Your task to perform on an android device: create a new album in the google photos Image 0: 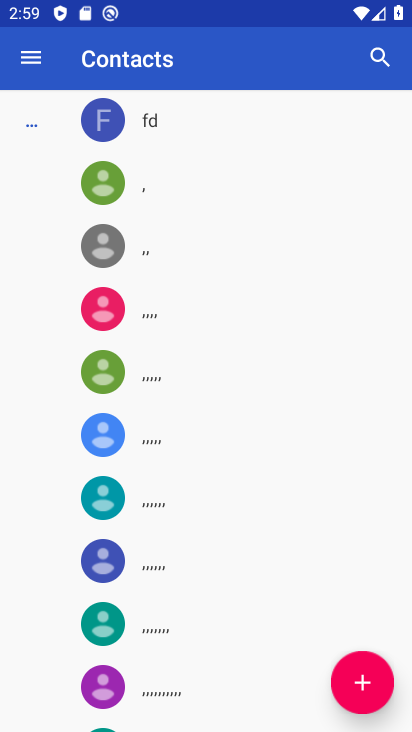
Step 0: press home button
Your task to perform on an android device: create a new album in the google photos Image 1: 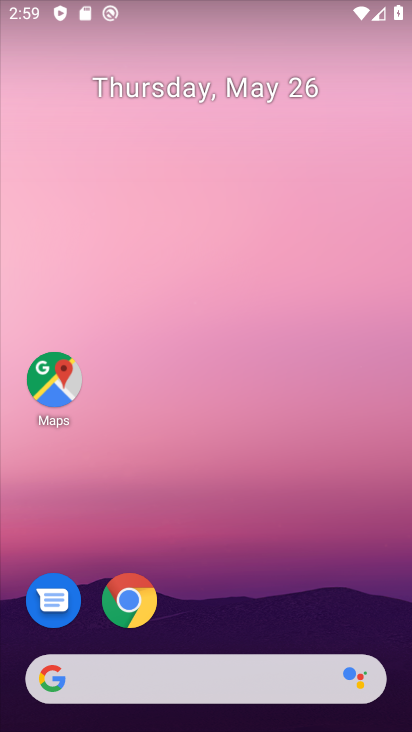
Step 1: drag from (193, 638) to (233, 296)
Your task to perform on an android device: create a new album in the google photos Image 2: 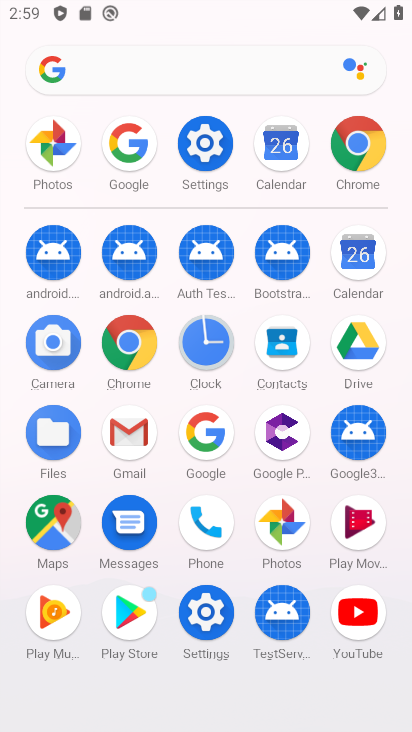
Step 2: click (277, 529)
Your task to perform on an android device: create a new album in the google photos Image 3: 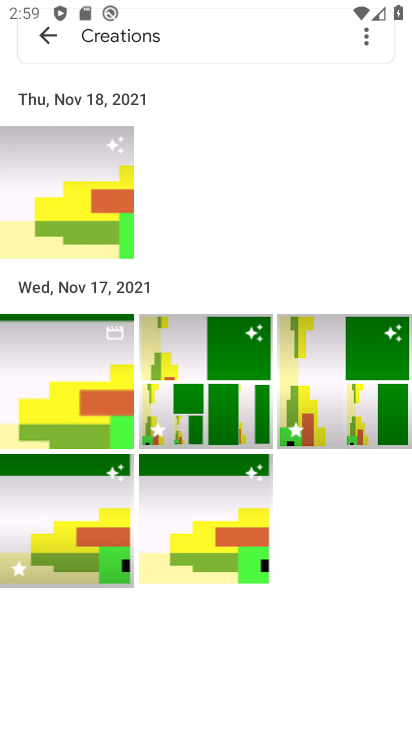
Step 3: click (43, 47)
Your task to perform on an android device: create a new album in the google photos Image 4: 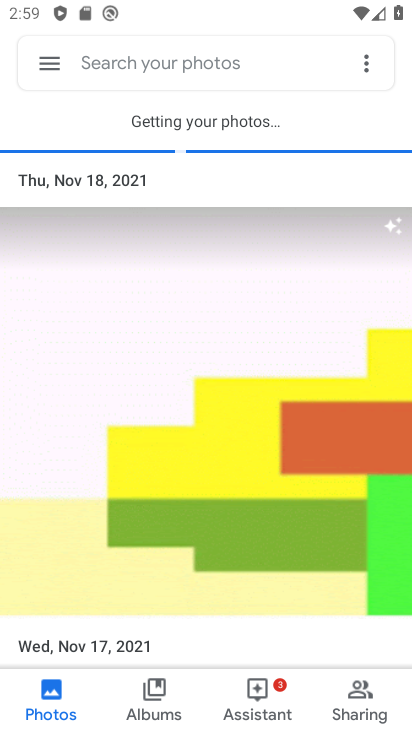
Step 4: click (137, 694)
Your task to perform on an android device: create a new album in the google photos Image 5: 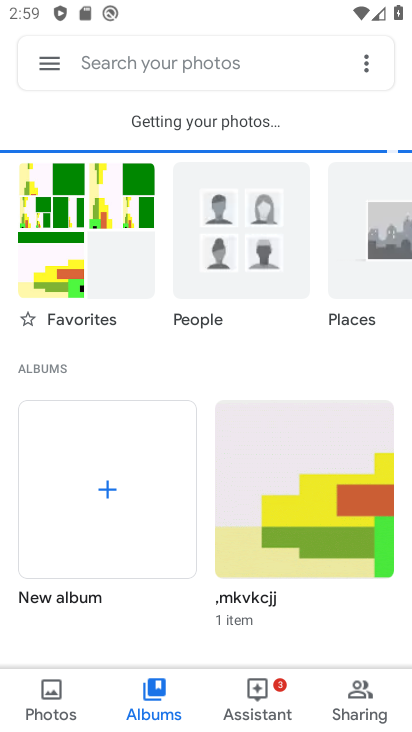
Step 5: click (119, 504)
Your task to perform on an android device: create a new album in the google photos Image 6: 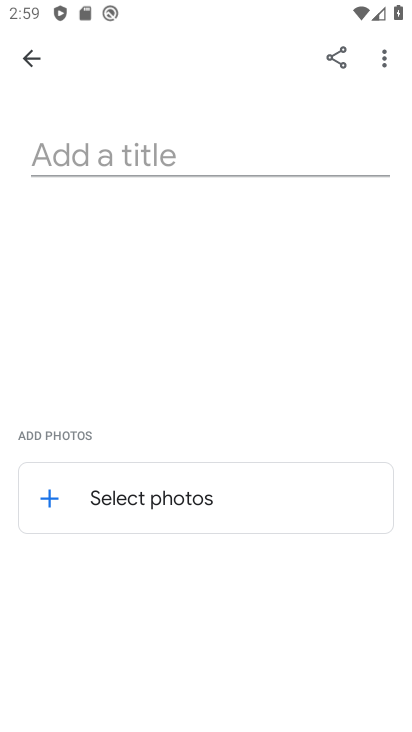
Step 6: click (144, 150)
Your task to perform on an android device: create a new album in the google photos Image 7: 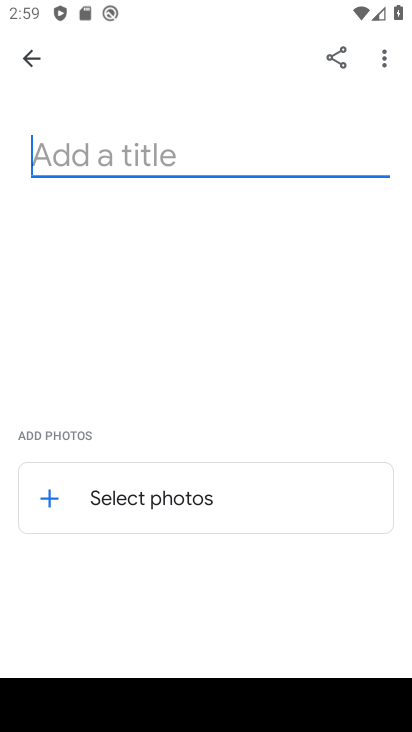
Step 7: type "ttve"
Your task to perform on an android device: create a new album in the google photos Image 8: 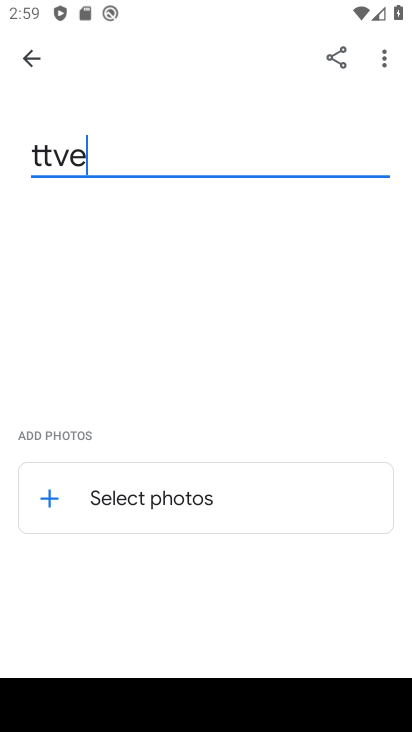
Step 8: click (125, 499)
Your task to perform on an android device: create a new album in the google photos Image 9: 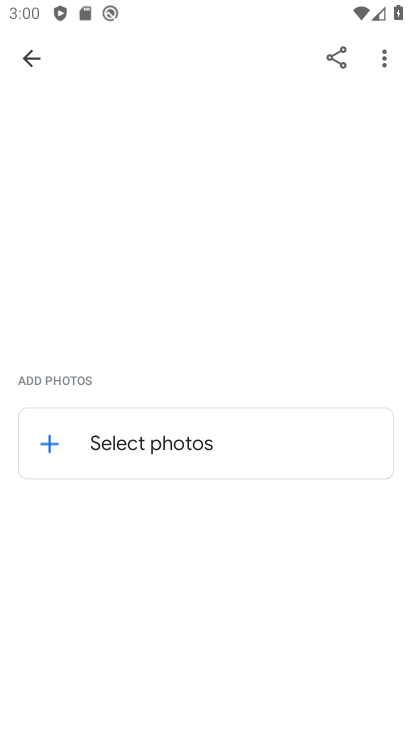
Step 9: click (87, 490)
Your task to perform on an android device: create a new album in the google photos Image 10: 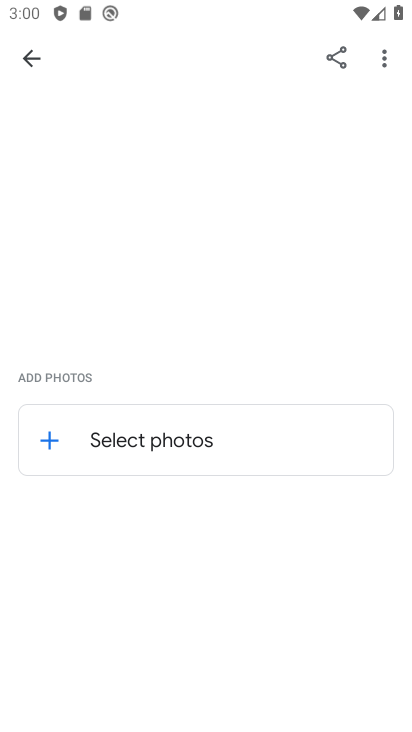
Step 10: click (144, 436)
Your task to perform on an android device: create a new album in the google photos Image 11: 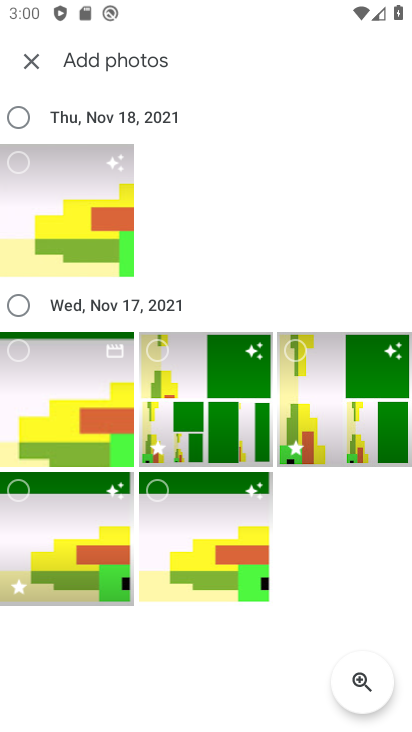
Step 11: click (87, 244)
Your task to perform on an android device: create a new album in the google photos Image 12: 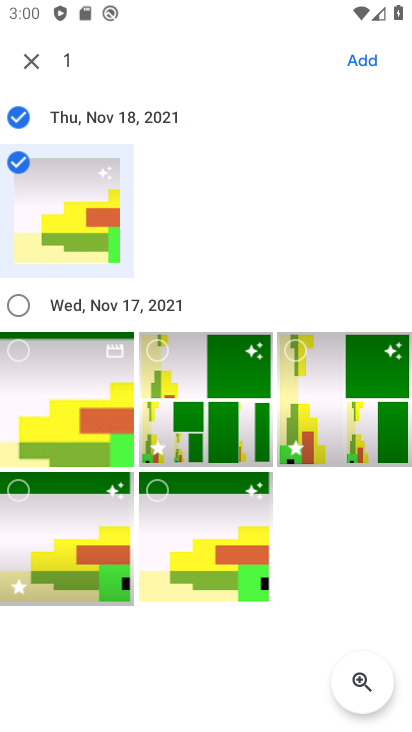
Step 12: click (204, 404)
Your task to perform on an android device: create a new album in the google photos Image 13: 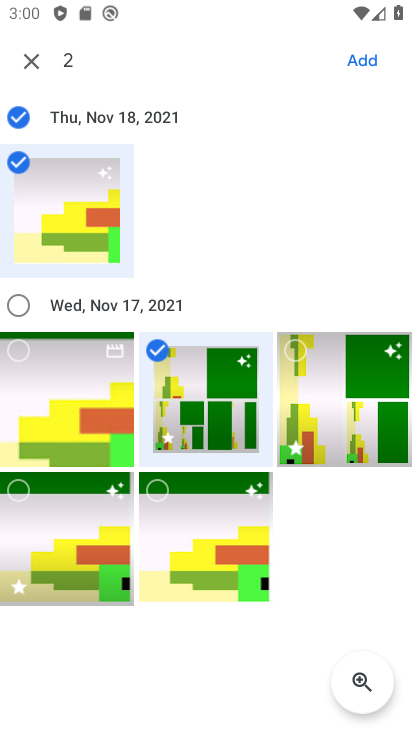
Step 13: click (361, 49)
Your task to perform on an android device: create a new album in the google photos Image 14: 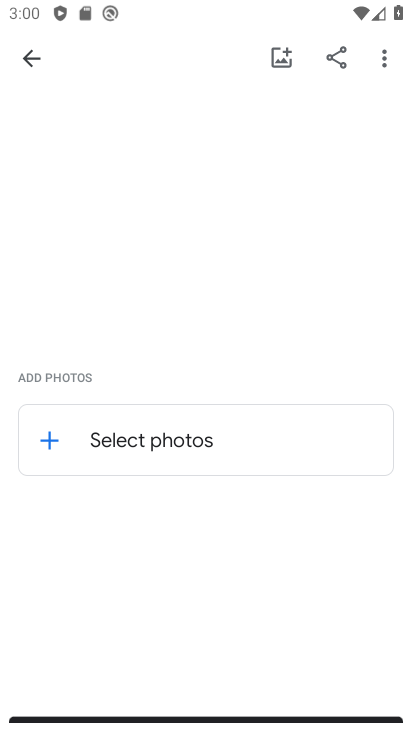
Step 14: task complete